Your task to perform on an android device: open sync settings in chrome Image 0: 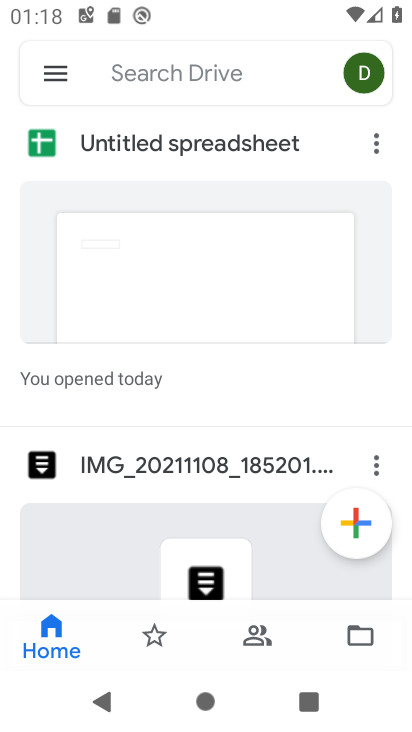
Step 0: press home button
Your task to perform on an android device: open sync settings in chrome Image 1: 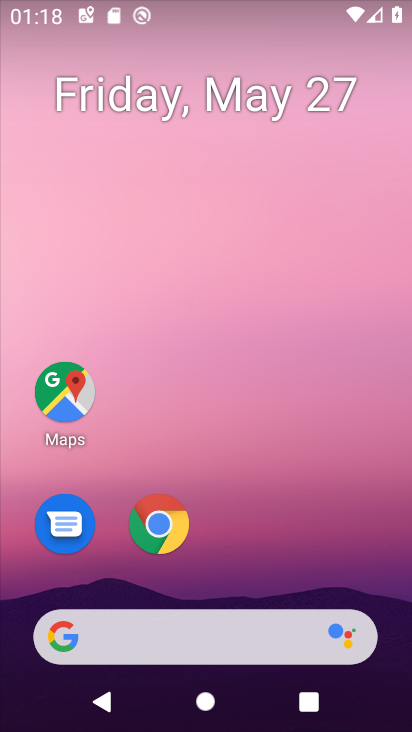
Step 1: click (164, 527)
Your task to perform on an android device: open sync settings in chrome Image 2: 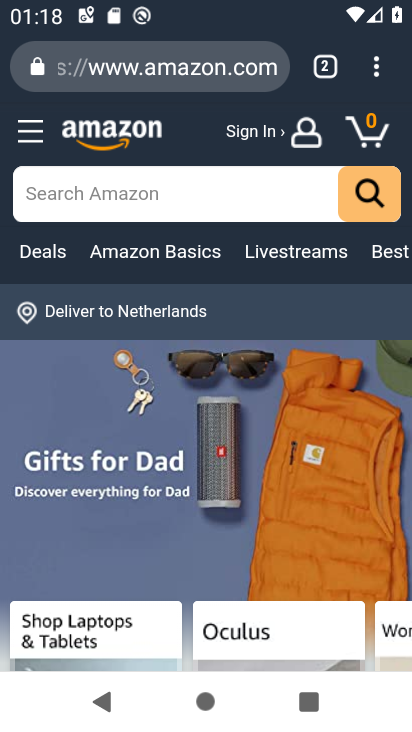
Step 2: click (376, 64)
Your task to perform on an android device: open sync settings in chrome Image 3: 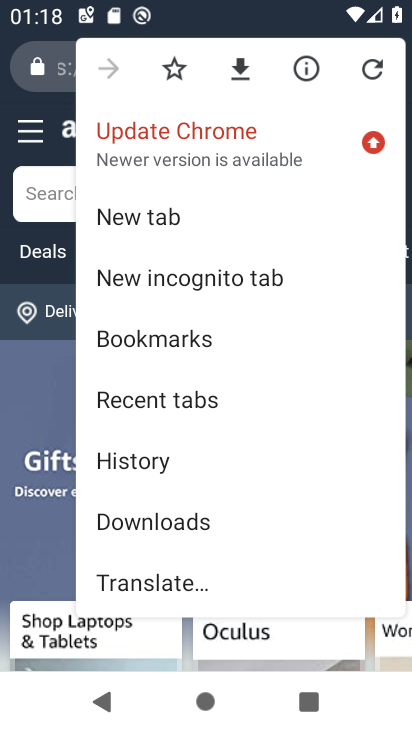
Step 3: drag from (268, 454) to (251, 131)
Your task to perform on an android device: open sync settings in chrome Image 4: 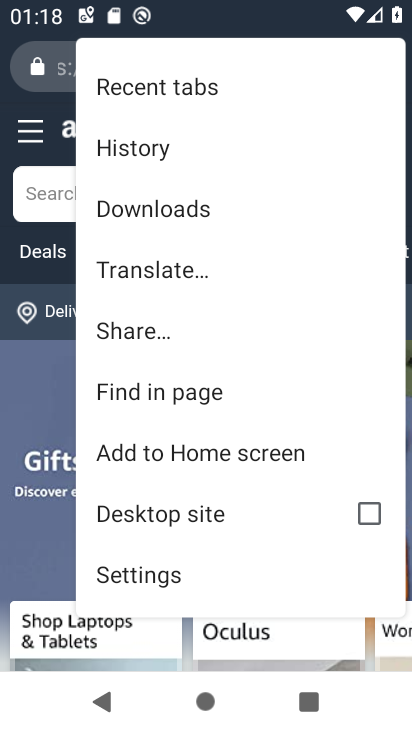
Step 4: click (191, 577)
Your task to perform on an android device: open sync settings in chrome Image 5: 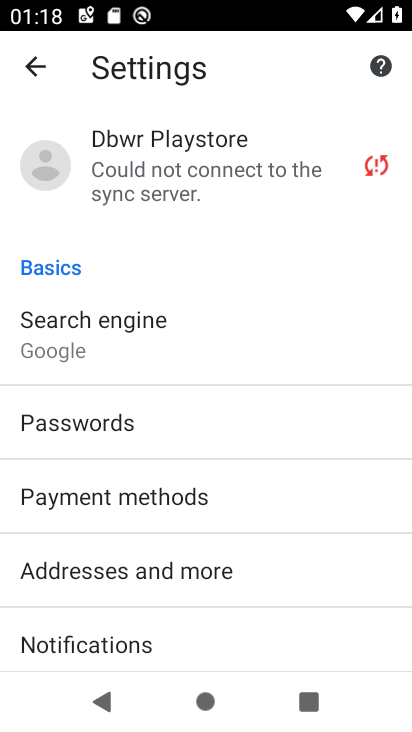
Step 5: drag from (261, 562) to (241, 632)
Your task to perform on an android device: open sync settings in chrome Image 6: 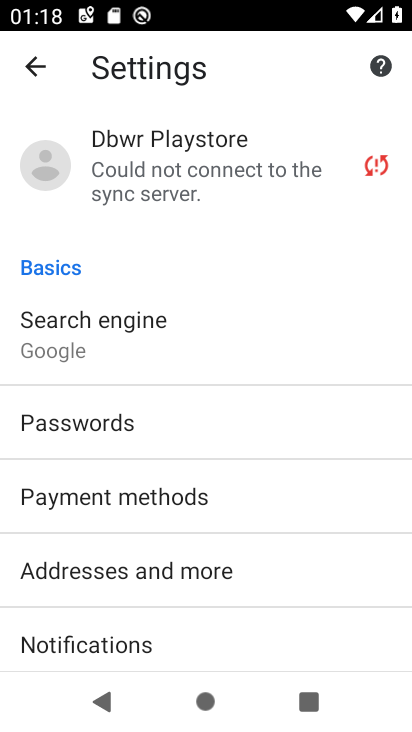
Step 6: click (233, 161)
Your task to perform on an android device: open sync settings in chrome Image 7: 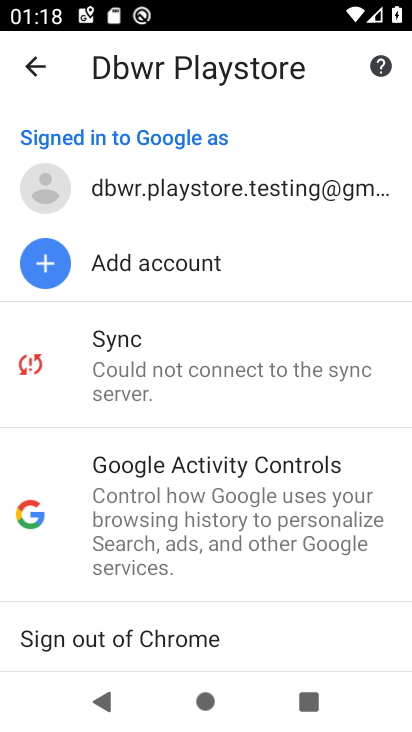
Step 7: click (199, 357)
Your task to perform on an android device: open sync settings in chrome Image 8: 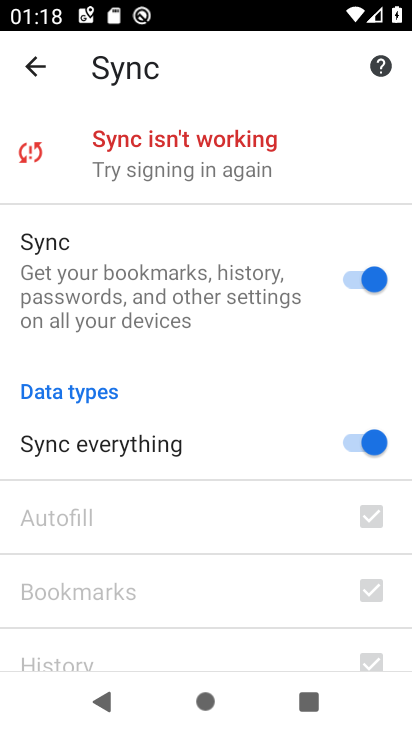
Step 8: task complete